Your task to perform on an android device: turn off notifications settings in the gmail app Image 0: 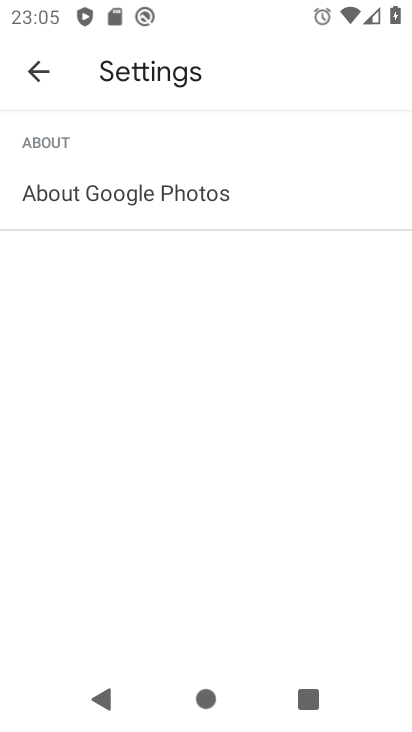
Step 0: press home button
Your task to perform on an android device: turn off notifications settings in the gmail app Image 1: 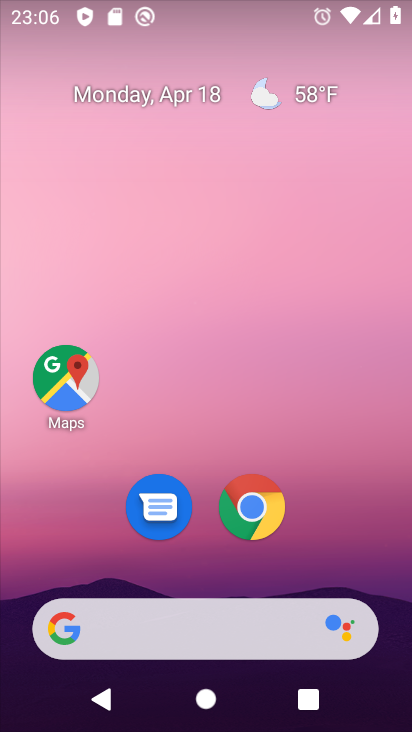
Step 1: drag from (190, 440) to (123, 77)
Your task to perform on an android device: turn off notifications settings in the gmail app Image 2: 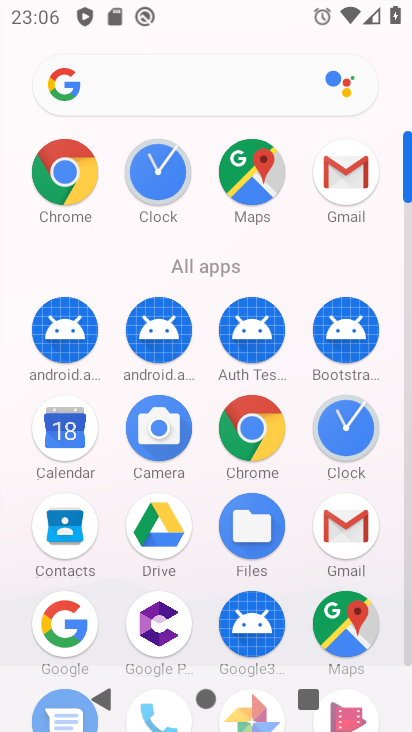
Step 2: click (325, 164)
Your task to perform on an android device: turn off notifications settings in the gmail app Image 3: 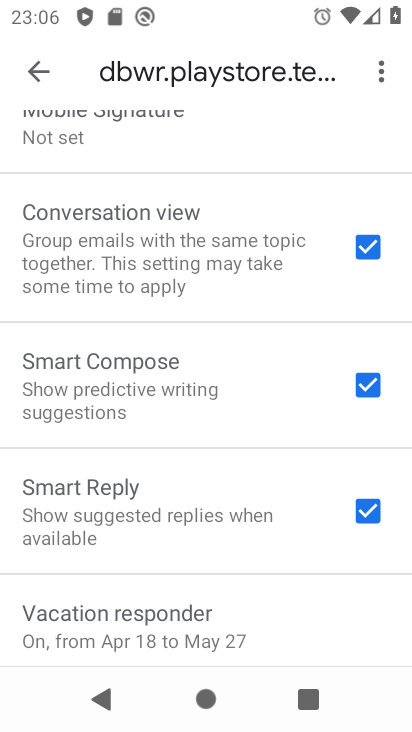
Step 3: drag from (118, 141) to (135, 662)
Your task to perform on an android device: turn off notifications settings in the gmail app Image 4: 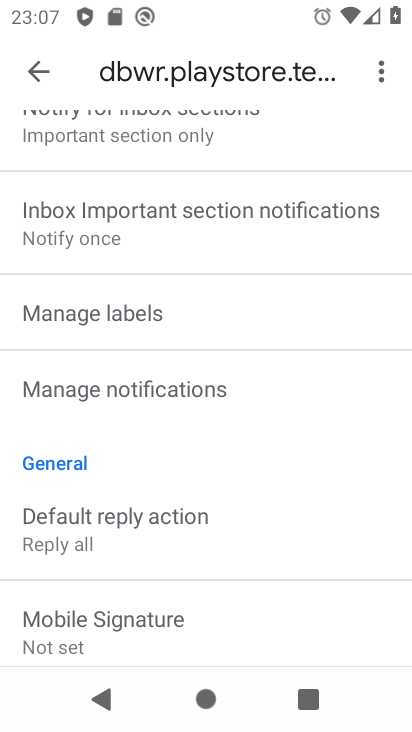
Step 4: drag from (193, 142) to (234, 535)
Your task to perform on an android device: turn off notifications settings in the gmail app Image 5: 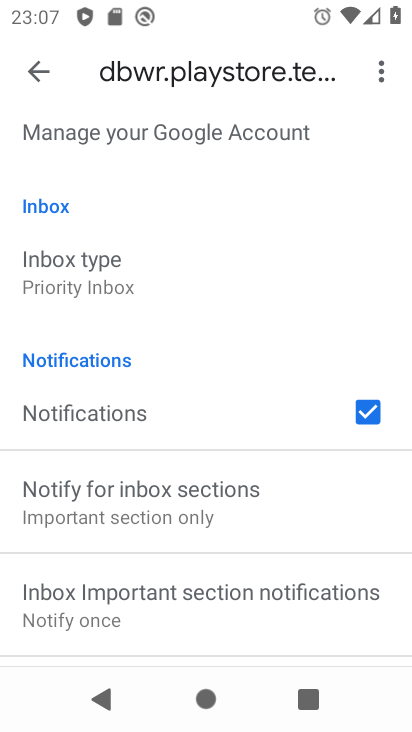
Step 5: drag from (234, 210) to (216, 419)
Your task to perform on an android device: turn off notifications settings in the gmail app Image 6: 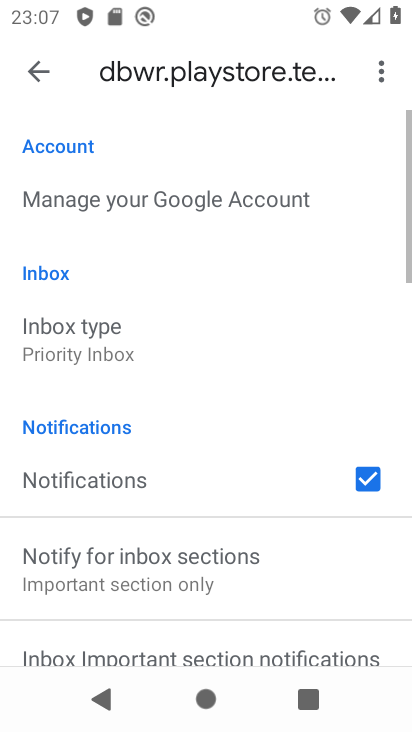
Step 6: click (372, 476)
Your task to perform on an android device: turn off notifications settings in the gmail app Image 7: 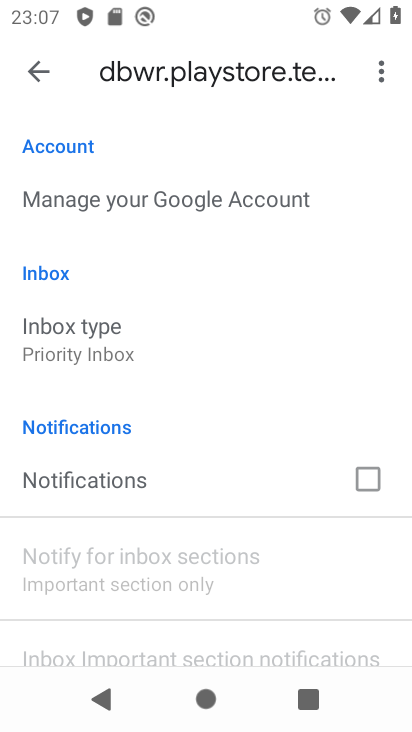
Step 7: task complete